Your task to perform on an android device: turn notification dots on Image 0: 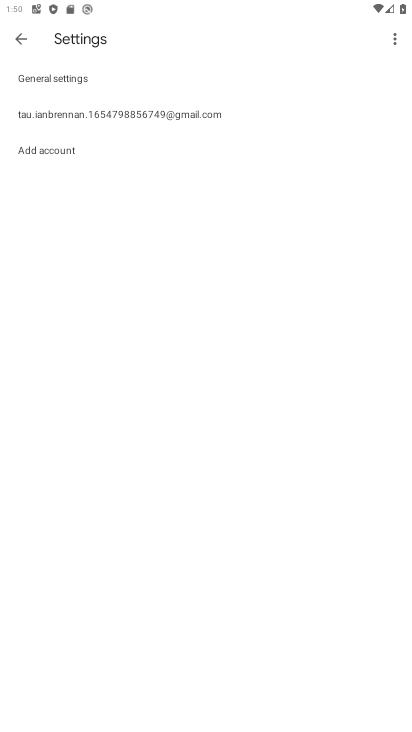
Step 0: press back button
Your task to perform on an android device: turn notification dots on Image 1: 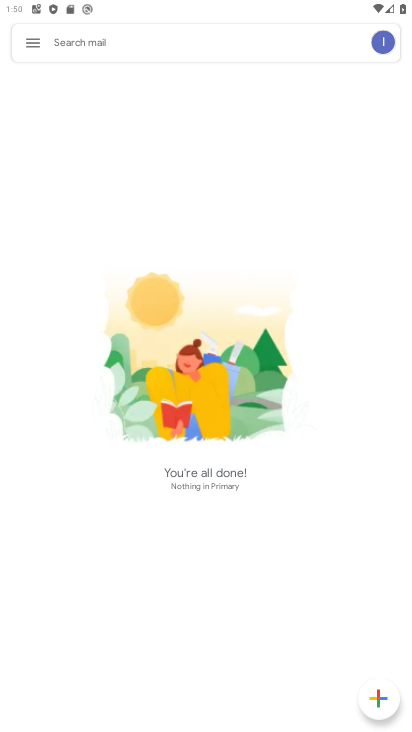
Step 1: press back button
Your task to perform on an android device: turn notification dots on Image 2: 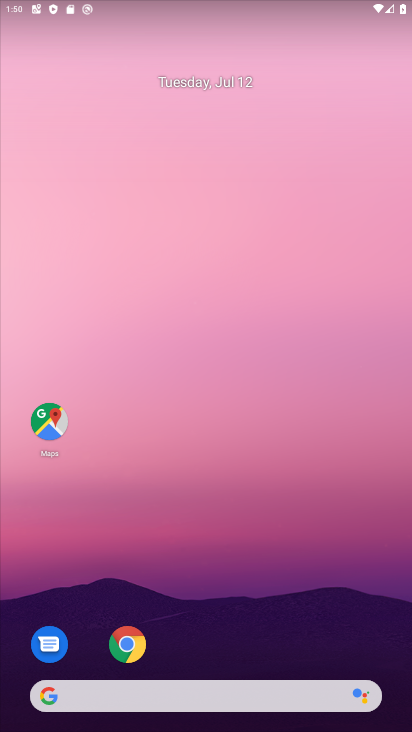
Step 2: drag from (275, 443) to (295, 74)
Your task to perform on an android device: turn notification dots on Image 3: 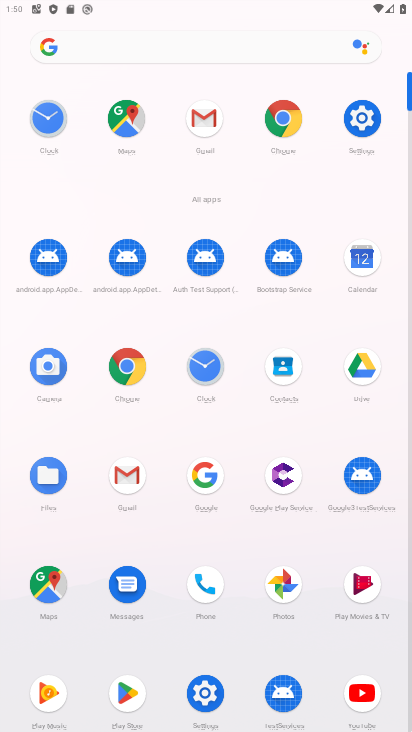
Step 3: click (359, 128)
Your task to perform on an android device: turn notification dots on Image 4: 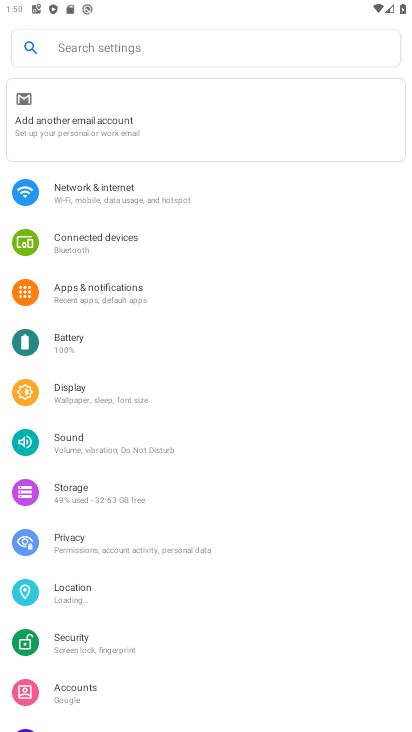
Step 4: click (144, 293)
Your task to perform on an android device: turn notification dots on Image 5: 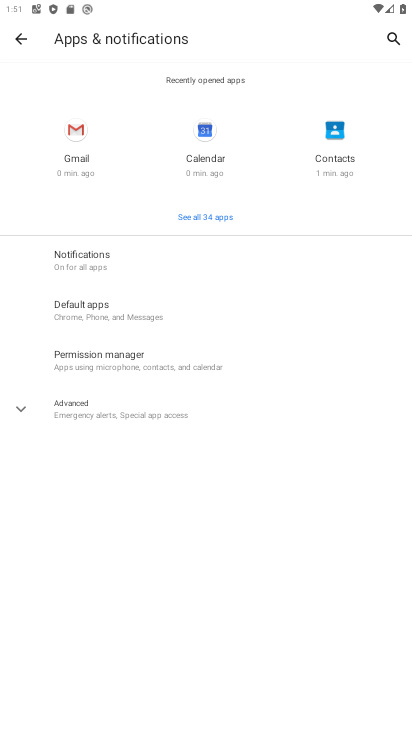
Step 5: click (136, 263)
Your task to perform on an android device: turn notification dots on Image 6: 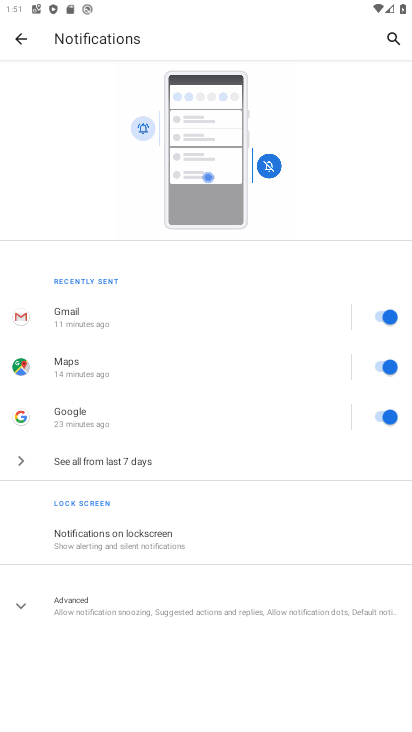
Step 6: drag from (153, 623) to (248, 95)
Your task to perform on an android device: turn notification dots on Image 7: 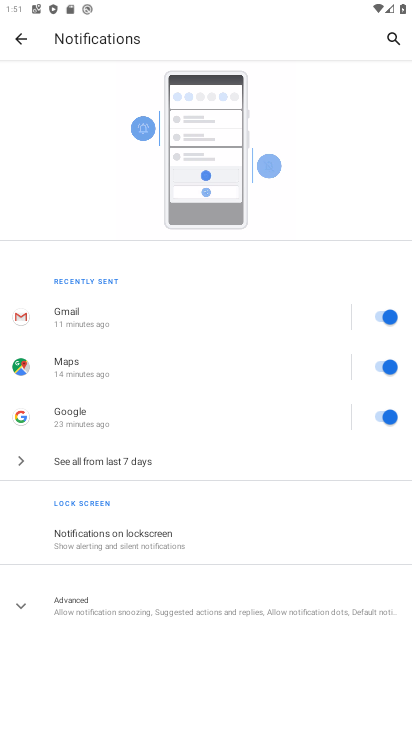
Step 7: click (86, 607)
Your task to perform on an android device: turn notification dots on Image 8: 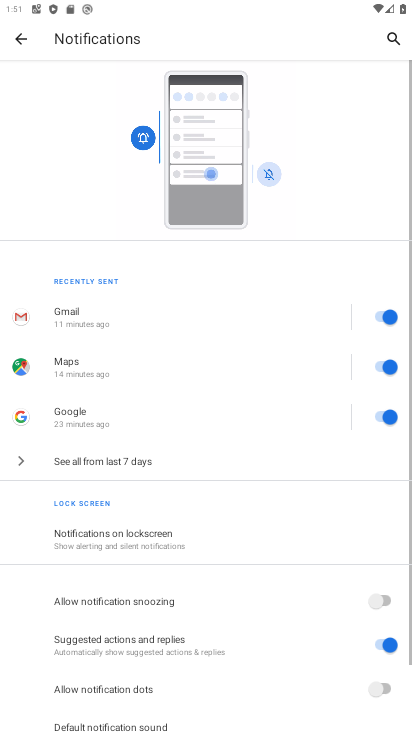
Step 8: drag from (151, 651) to (263, 318)
Your task to perform on an android device: turn notification dots on Image 9: 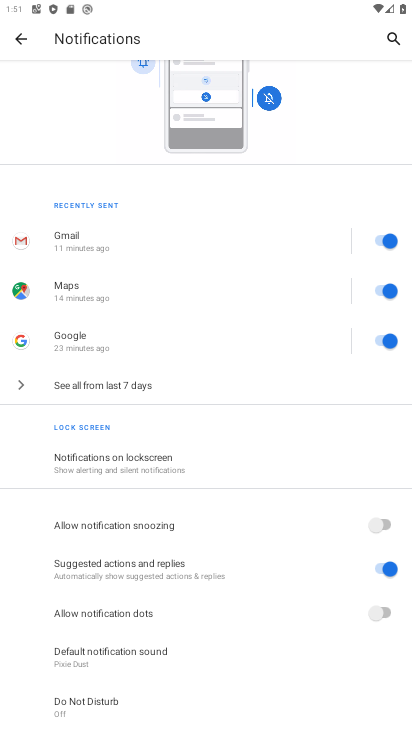
Step 9: click (390, 613)
Your task to perform on an android device: turn notification dots on Image 10: 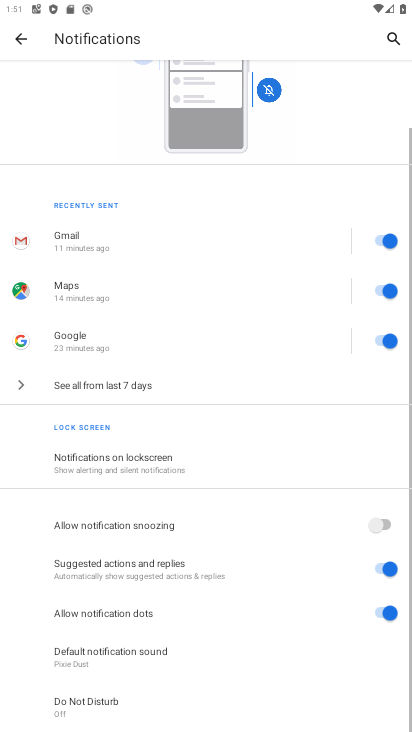
Step 10: task complete